Your task to perform on an android device: manage bookmarks in the chrome app Image 0: 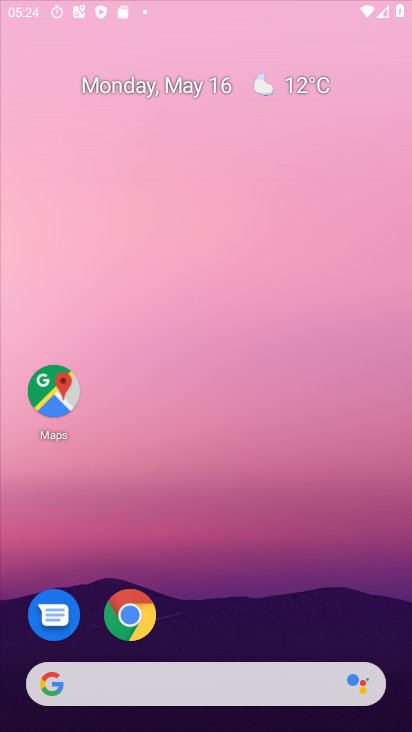
Step 0: click (216, 40)
Your task to perform on an android device: manage bookmarks in the chrome app Image 1: 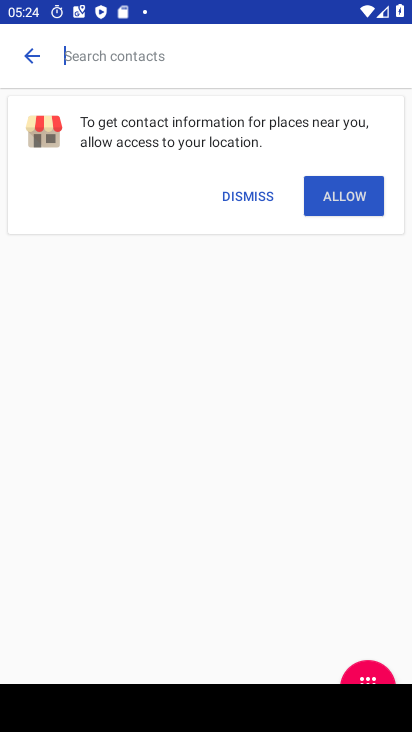
Step 1: press back button
Your task to perform on an android device: manage bookmarks in the chrome app Image 2: 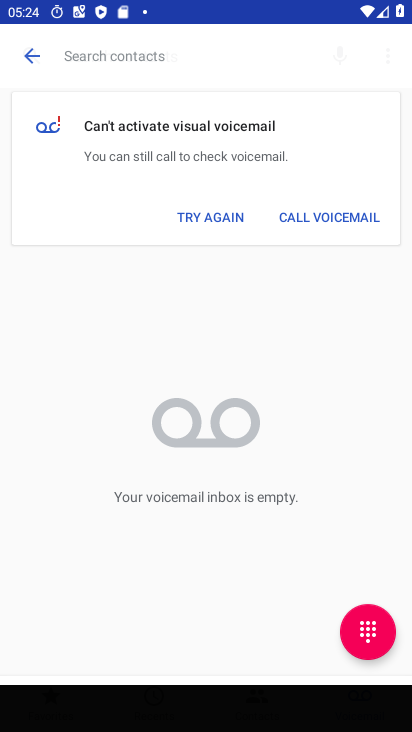
Step 2: press back button
Your task to perform on an android device: manage bookmarks in the chrome app Image 3: 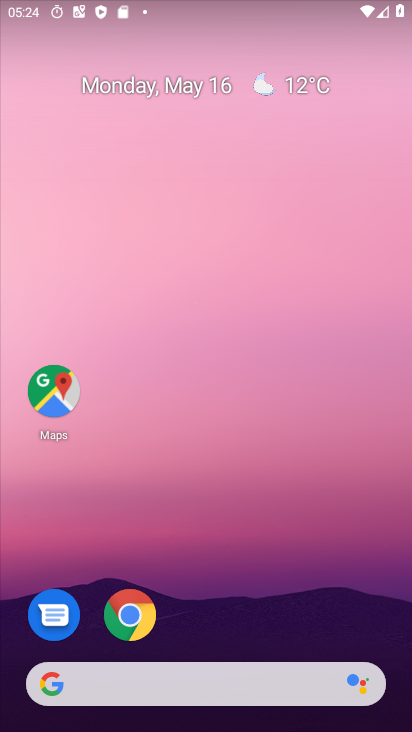
Step 3: drag from (256, 677) to (218, 59)
Your task to perform on an android device: manage bookmarks in the chrome app Image 4: 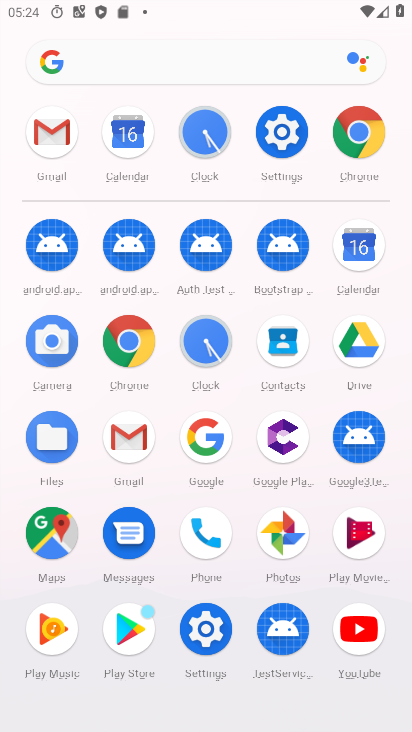
Step 4: click (363, 135)
Your task to perform on an android device: manage bookmarks in the chrome app Image 5: 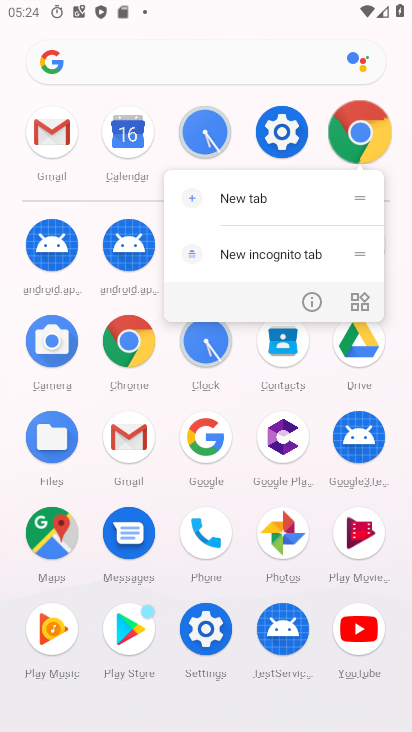
Step 5: click (361, 136)
Your task to perform on an android device: manage bookmarks in the chrome app Image 6: 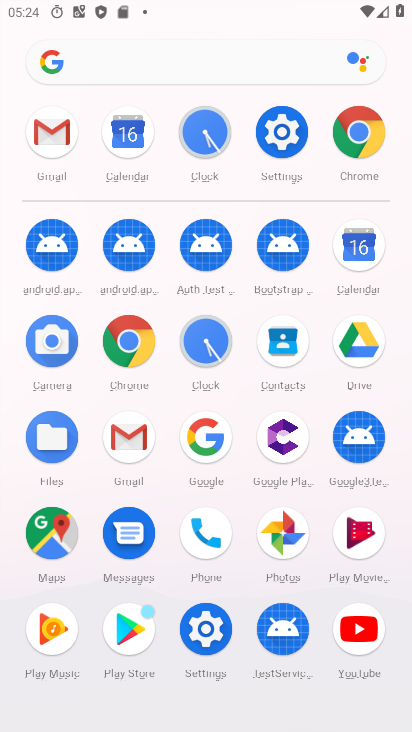
Step 6: click (360, 137)
Your task to perform on an android device: manage bookmarks in the chrome app Image 7: 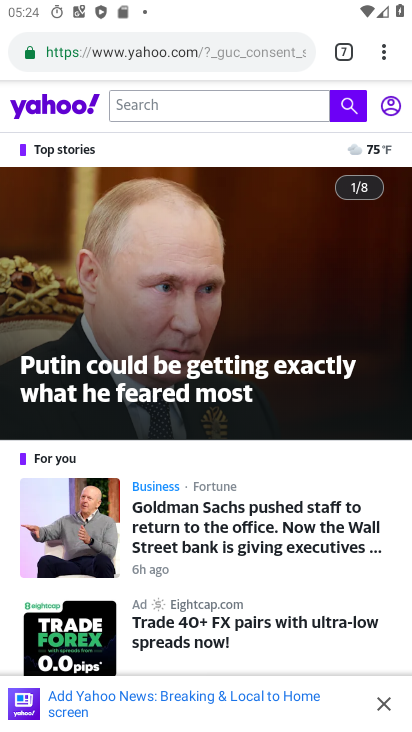
Step 7: click (377, 54)
Your task to perform on an android device: manage bookmarks in the chrome app Image 8: 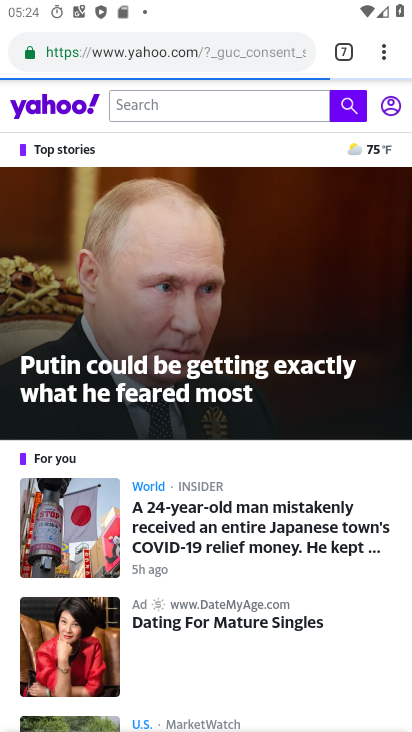
Step 8: drag from (381, 54) to (229, 228)
Your task to perform on an android device: manage bookmarks in the chrome app Image 9: 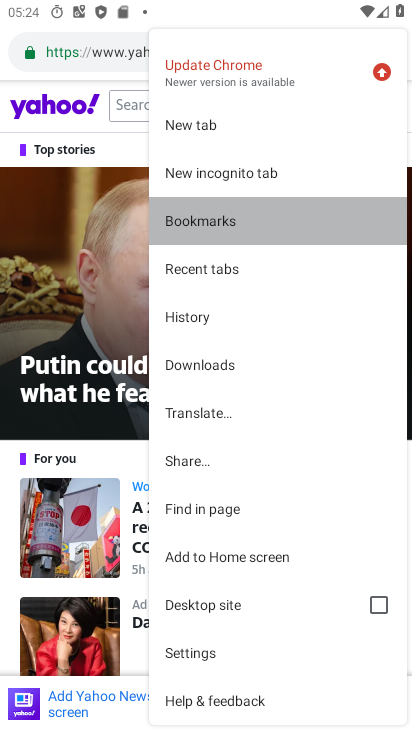
Step 9: click (229, 228)
Your task to perform on an android device: manage bookmarks in the chrome app Image 10: 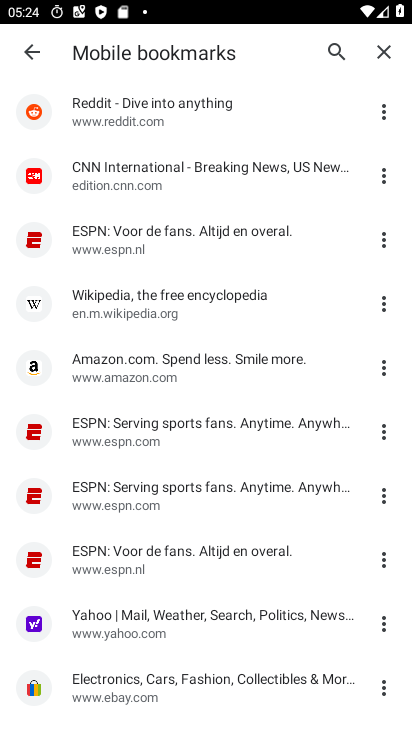
Step 10: click (383, 121)
Your task to perform on an android device: manage bookmarks in the chrome app Image 11: 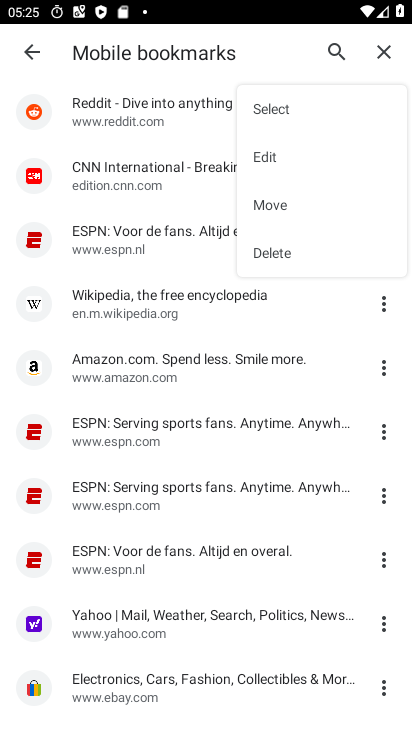
Step 11: click (271, 255)
Your task to perform on an android device: manage bookmarks in the chrome app Image 12: 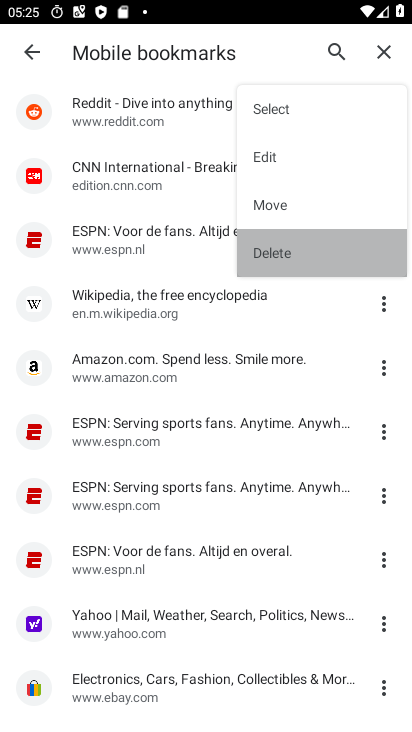
Step 12: click (275, 248)
Your task to perform on an android device: manage bookmarks in the chrome app Image 13: 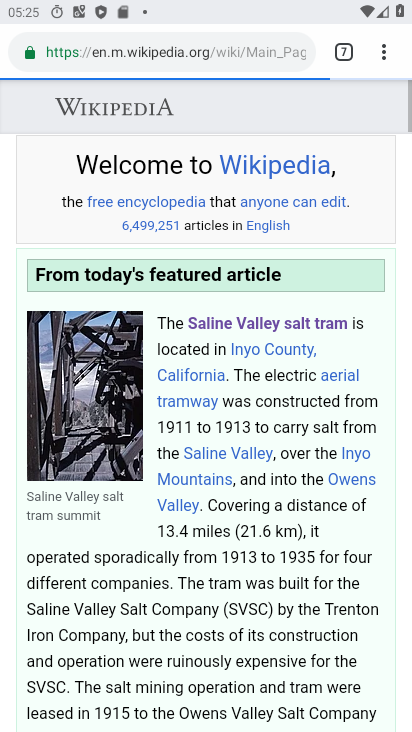
Step 13: task complete